Your task to perform on an android device: turn on location history Image 0: 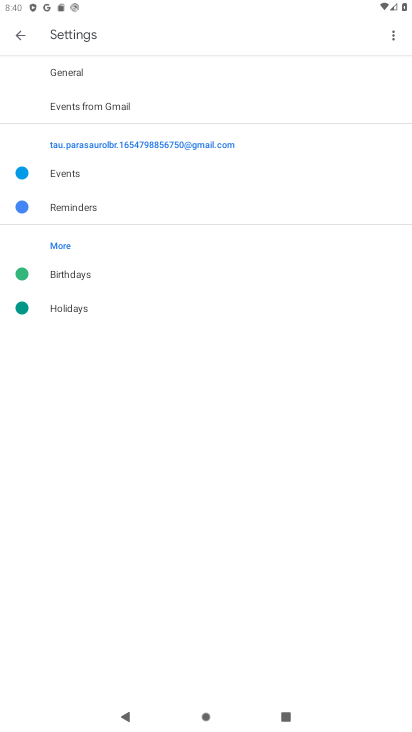
Step 0: press home button
Your task to perform on an android device: turn on location history Image 1: 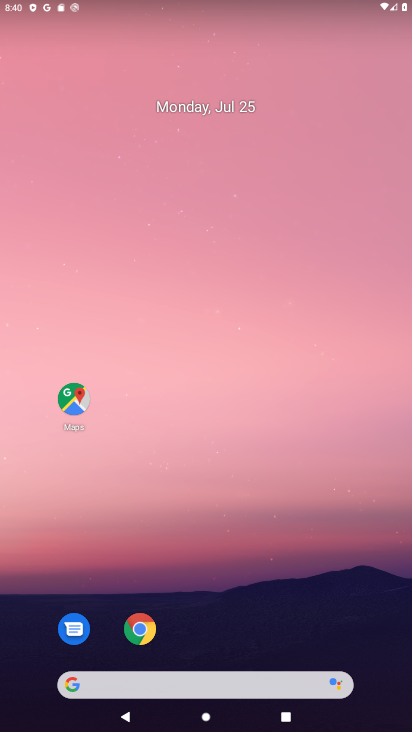
Step 1: drag from (221, 647) to (212, 63)
Your task to perform on an android device: turn on location history Image 2: 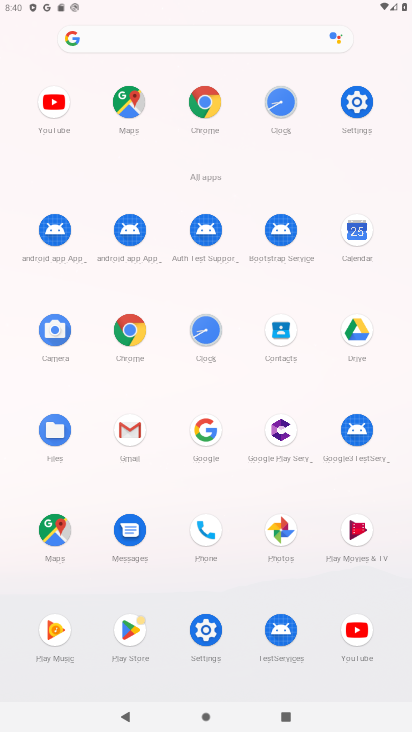
Step 2: click (355, 109)
Your task to perform on an android device: turn on location history Image 3: 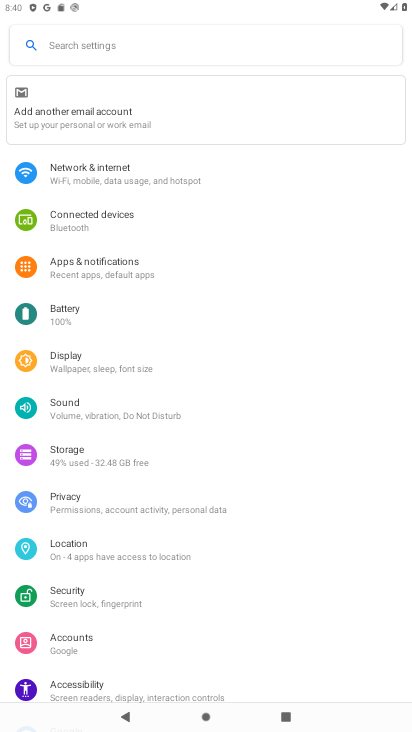
Step 3: click (115, 546)
Your task to perform on an android device: turn on location history Image 4: 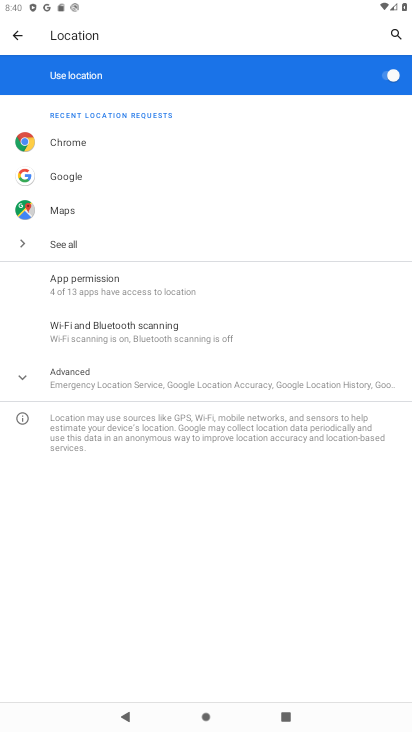
Step 4: click (155, 378)
Your task to perform on an android device: turn on location history Image 5: 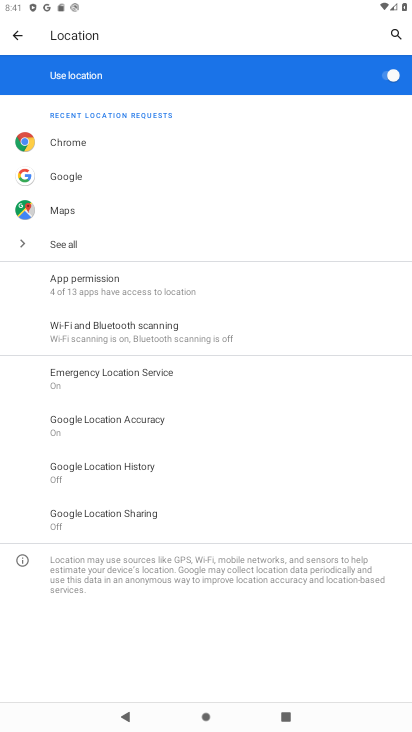
Step 5: click (181, 476)
Your task to perform on an android device: turn on location history Image 6: 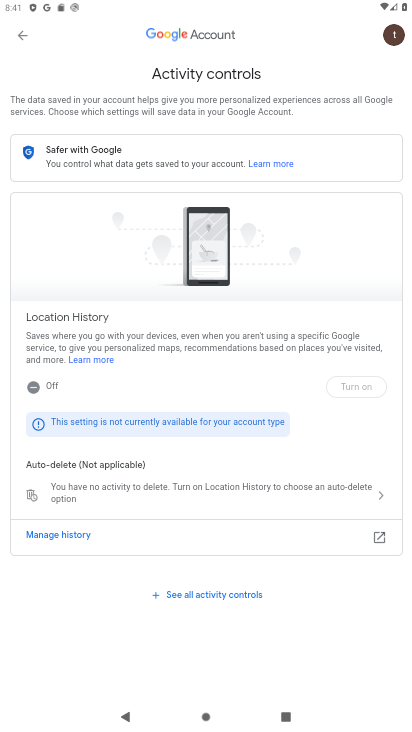
Step 6: task complete